Your task to perform on an android device: Open Reddit.com Image 0: 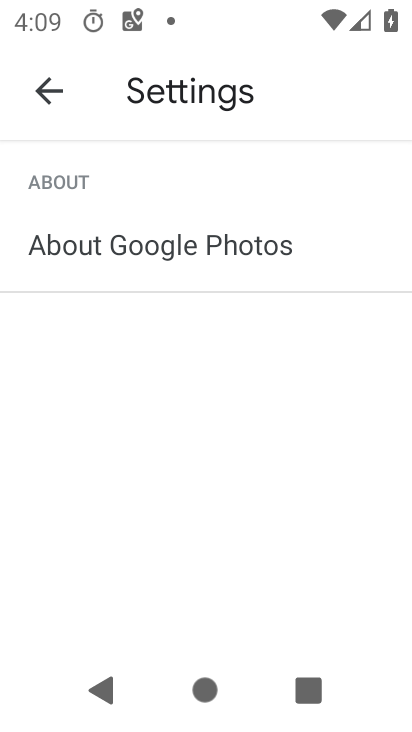
Step 0: press home button
Your task to perform on an android device: Open Reddit.com Image 1: 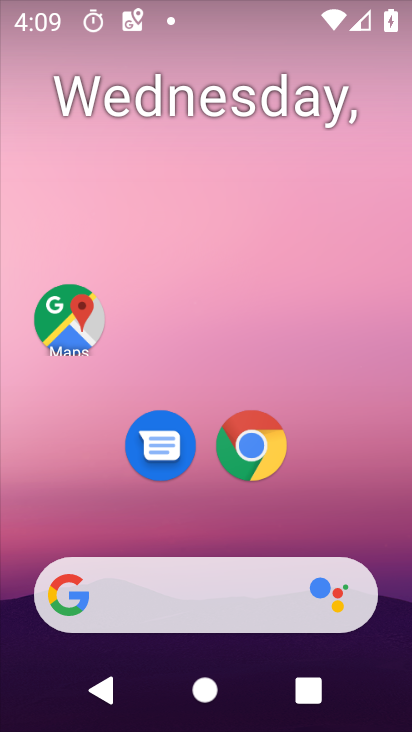
Step 1: drag from (215, 528) to (217, 74)
Your task to perform on an android device: Open Reddit.com Image 2: 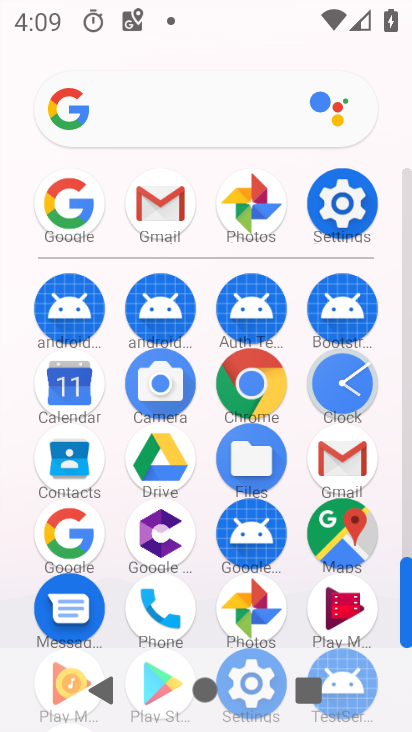
Step 2: click (67, 203)
Your task to perform on an android device: Open Reddit.com Image 3: 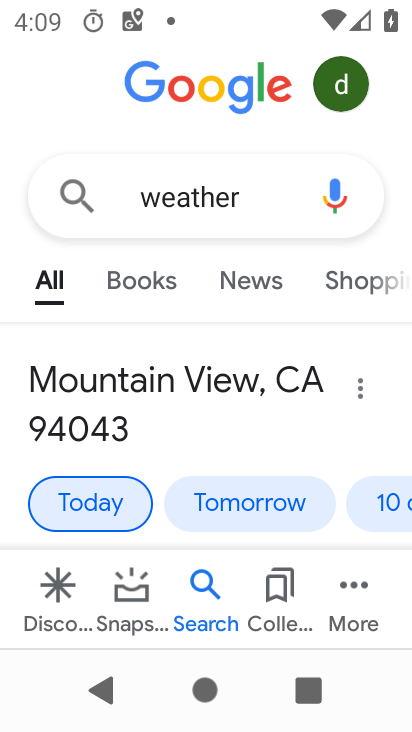
Step 3: click (253, 200)
Your task to perform on an android device: Open Reddit.com Image 4: 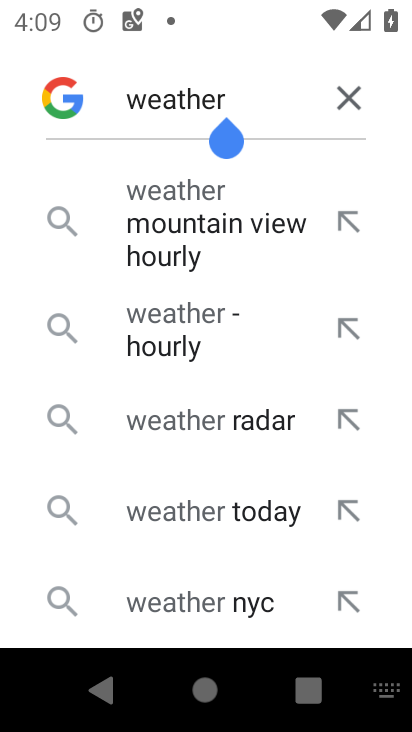
Step 4: click (342, 96)
Your task to perform on an android device: Open Reddit.com Image 5: 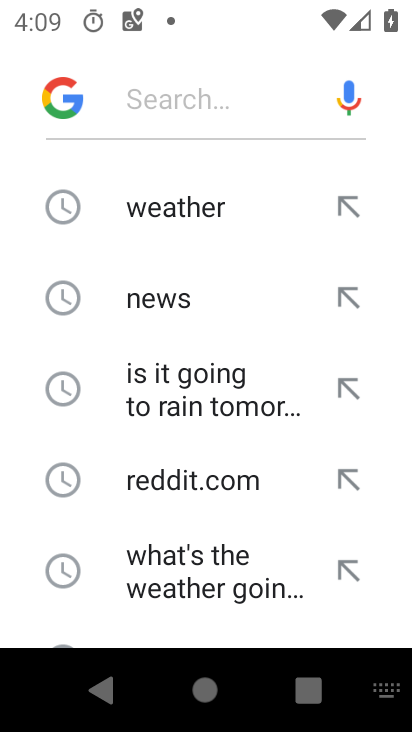
Step 5: drag from (230, 494) to (249, 100)
Your task to perform on an android device: Open Reddit.com Image 6: 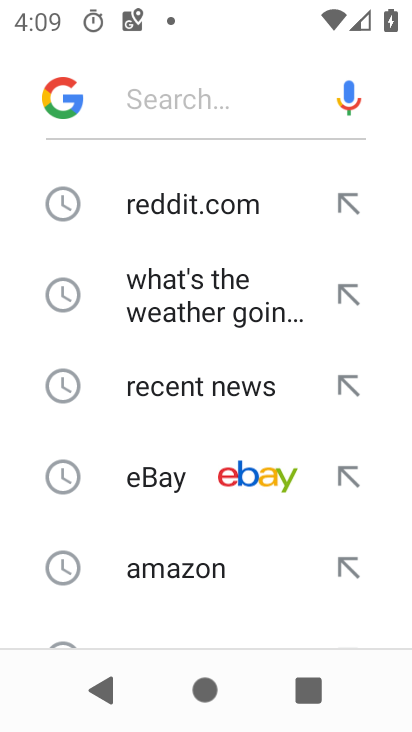
Step 6: drag from (163, 512) to (185, 132)
Your task to perform on an android device: Open Reddit.com Image 7: 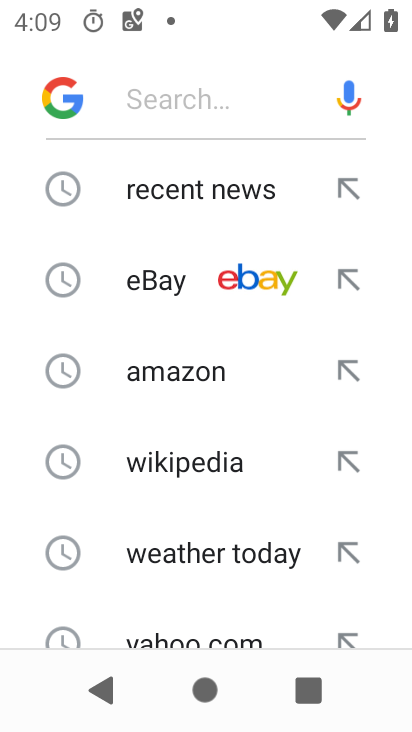
Step 7: drag from (198, 550) to (241, 130)
Your task to perform on an android device: Open Reddit.com Image 8: 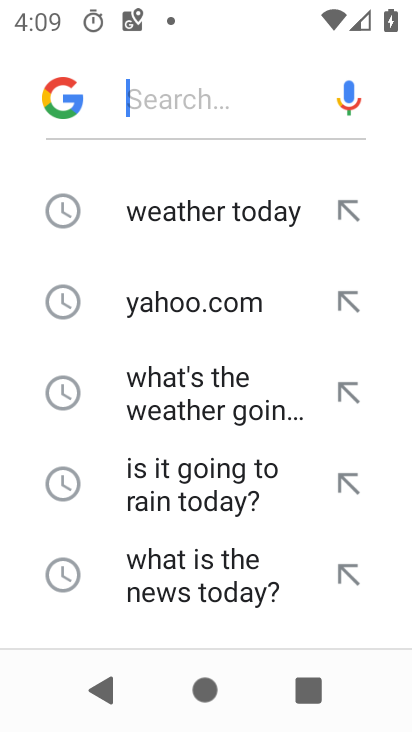
Step 8: type "reddit.com"
Your task to perform on an android device: Open Reddit.com Image 9: 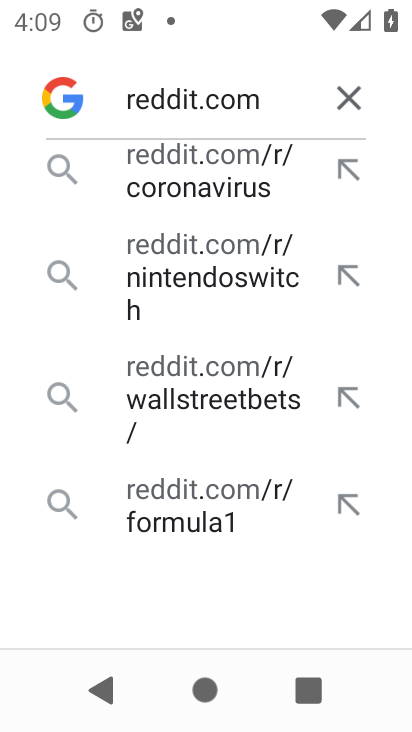
Step 9: drag from (221, 271) to (217, 533)
Your task to perform on an android device: Open Reddit.com Image 10: 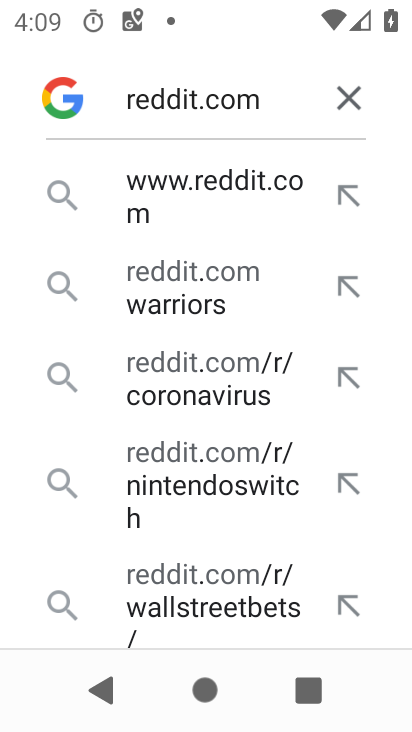
Step 10: click (199, 202)
Your task to perform on an android device: Open Reddit.com Image 11: 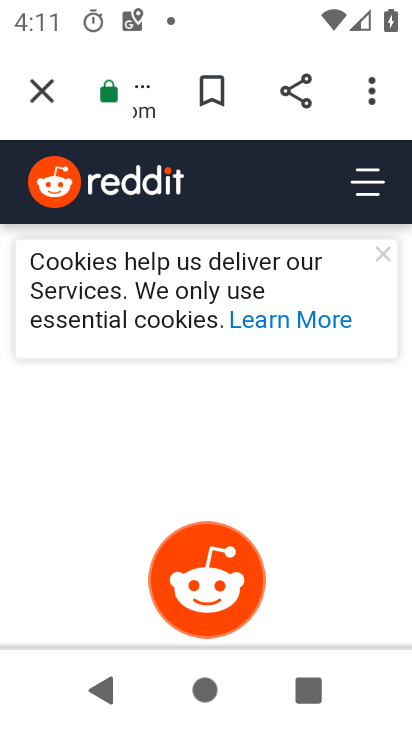
Step 11: task complete